Your task to perform on an android device: Go to Yahoo.com Image 0: 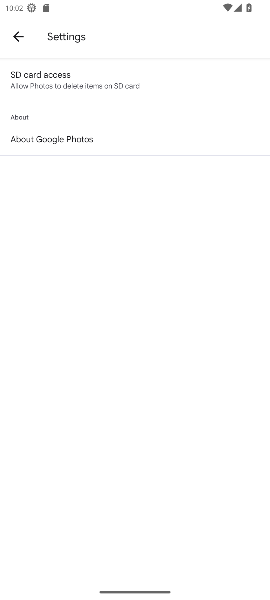
Step 0: press home button
Your task to perform on an android device: Go to Yahoo.com Image 1: 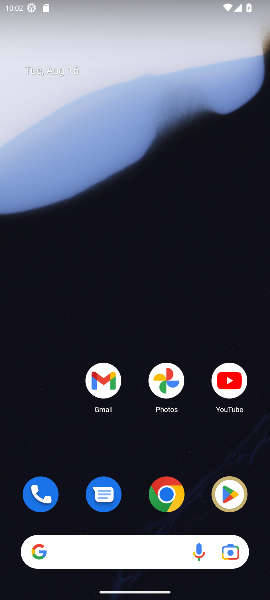
Step 1: drag from (210, 408) to (247, 466)
Your task to perform on an android device: Go to Yahoo.com Image 2: 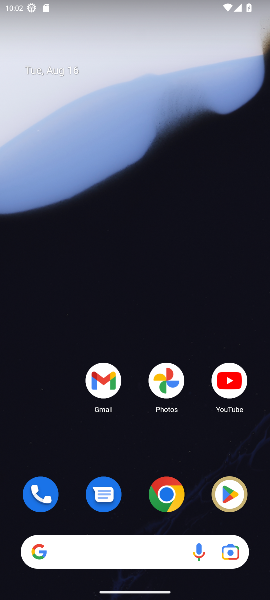
Step 2: drag from (136, 509) to (242, 9)
Your task to perform on an android device: Go to Yahoo.com Image 3: 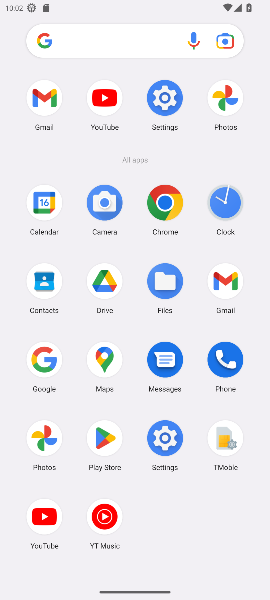
Step 3: click (163, 192)
Your task to perform on an android device: Go to Yahoo.com Image 4: 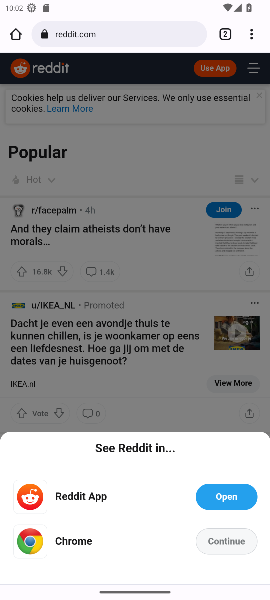
Step 4: click (132, 33)
Your task to perform on an android device: Go to Yahoo.com Image 5: 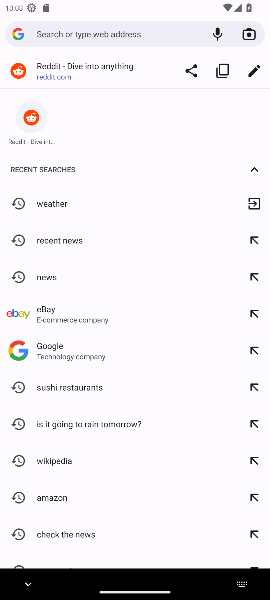
Step 5: type "Yahoo.com"
Your task to perform on an android device: Go to Yahoo.com Image 6: 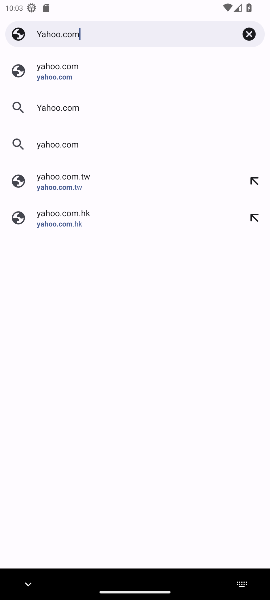
Step 6: click (45, 75)
Your task to perform on an android device: Go to Yahoo.com Image 7: 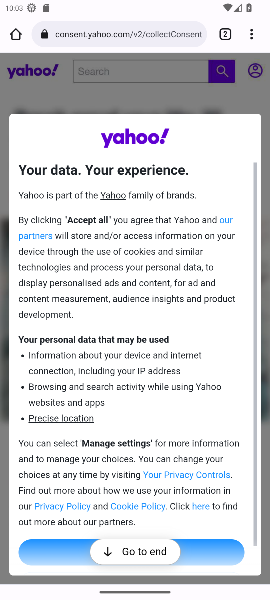
Step 7: task complete